Your task to perform on an android device: Open sound settings Image 0: 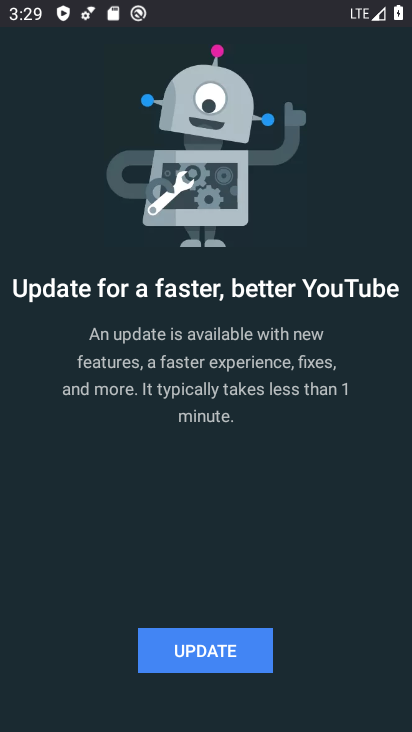
Step 0: press home button
Your task to perform on an android device: Open sound settings Image 1: 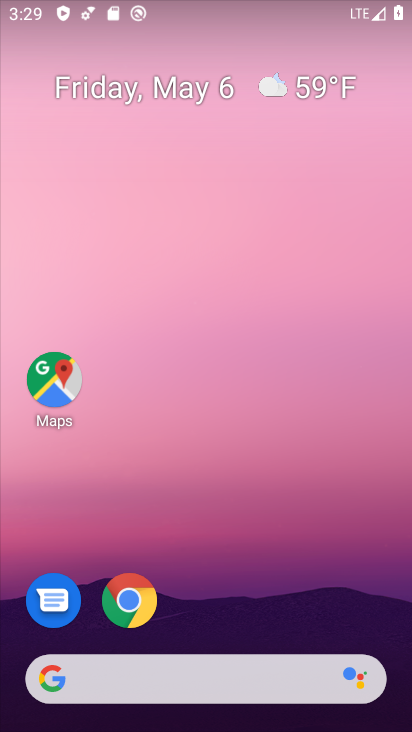
Step 1: drag from (228, 613) to (313, 4)
Your task to perform on an android device: Open sound settings Image 2: 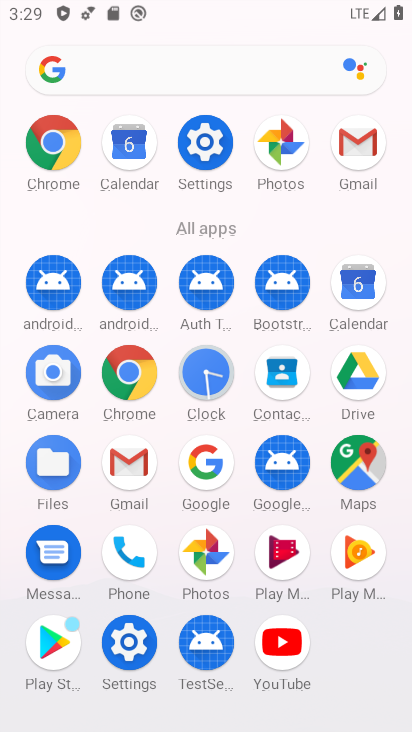
Step 2: click (218, 229)
Your task to perform on an android device: Open sound settings Image 3: 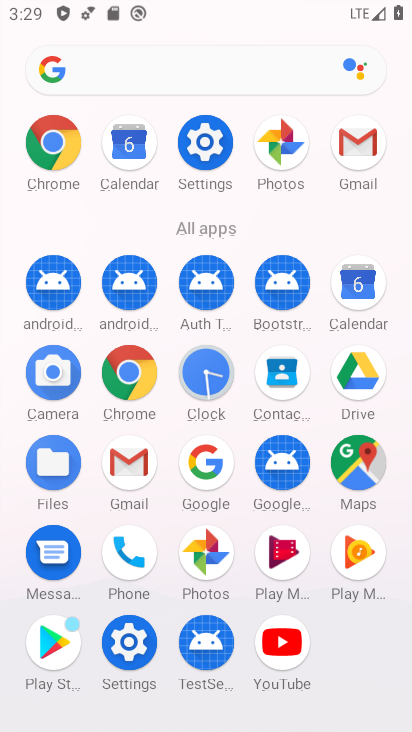
Step 3: click (210, 169)
Your task to perform on an android device: Open sound settings Image 4: 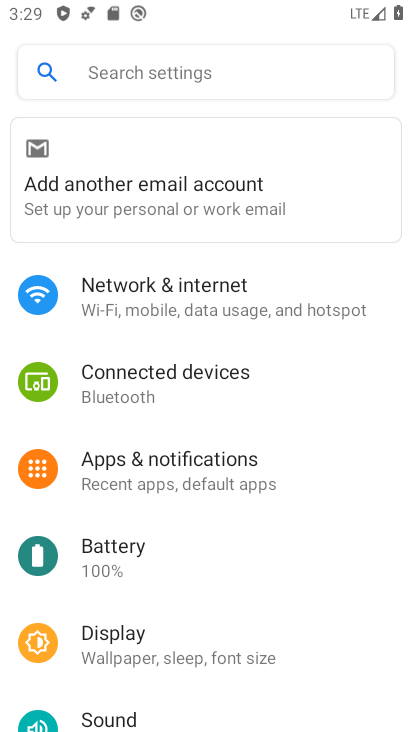
Step 4: drag from (176, 567) to (226, 301)
Your task to perform on an android device: Open sound settings Image 5: 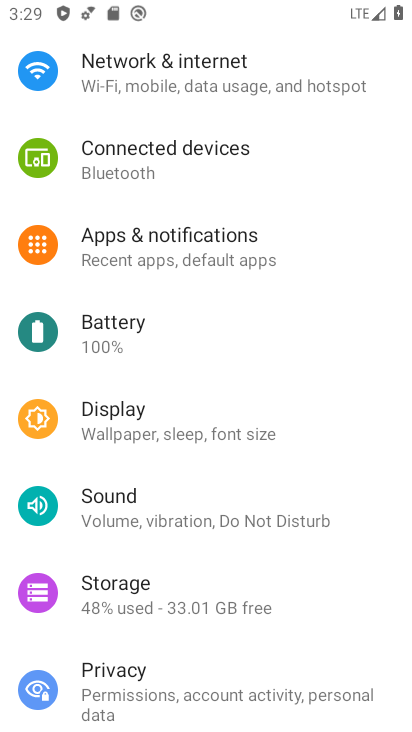
Step 5: click (142, 519)
Your task to perform on an android device: Open sound settings Image 6: 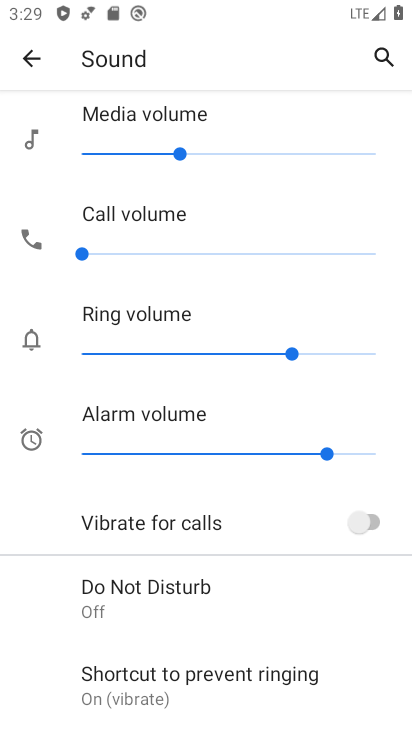
Step 6: task complete